Your task to perform on an android device: Play the last video I watched on Youtube Image 0: 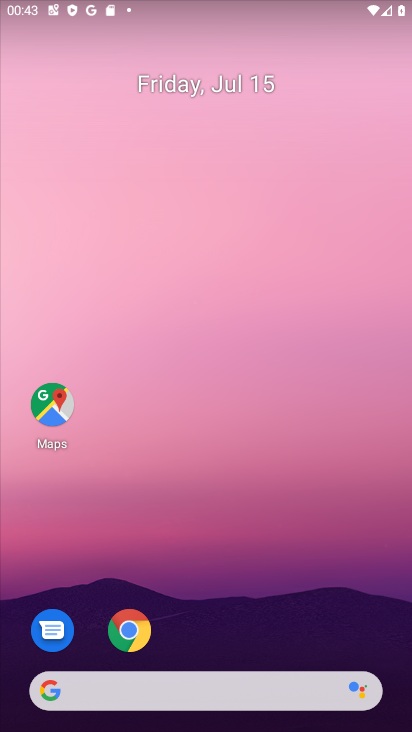
Step 0: drag from (272, 646) to (230, 177)
Your task to perform on an android device: Play the last video I watched on Youtube Image 1: 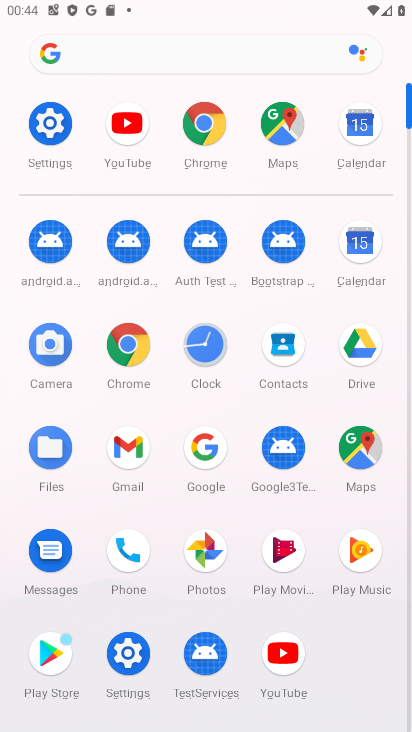
Step 1: click (277, 655)
Your task to perform on an android device: Play the last video I watched on Youtube Image 2: 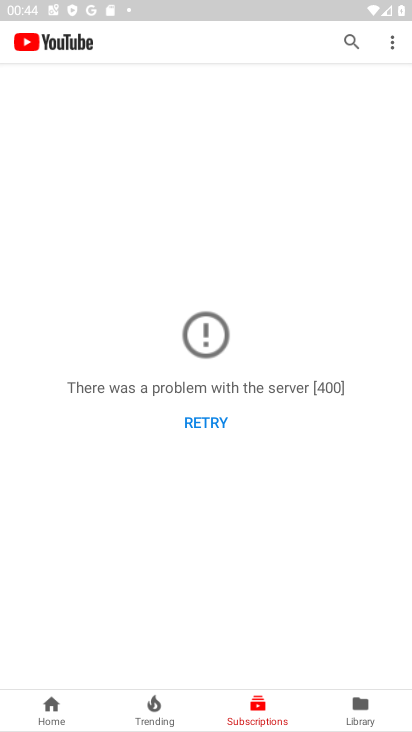
Step 2: click (363, 699)
Your task to perform on an android device: Play the last video I watched on Youtube Image 3: 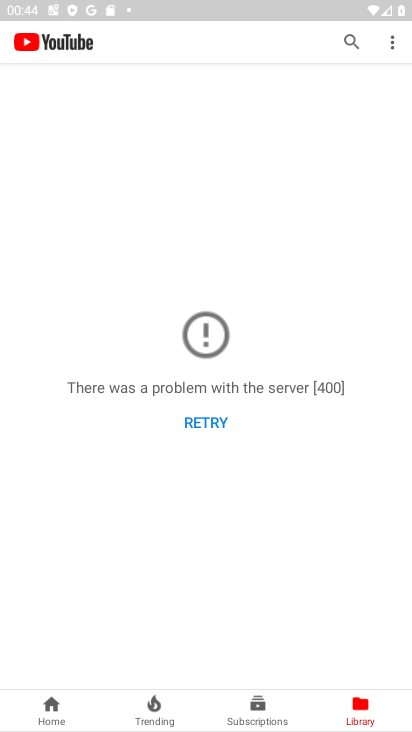
Step 3: click (209, 416)
Your task to perform on an android device: Play the last video I watched on Youtube Image 4: 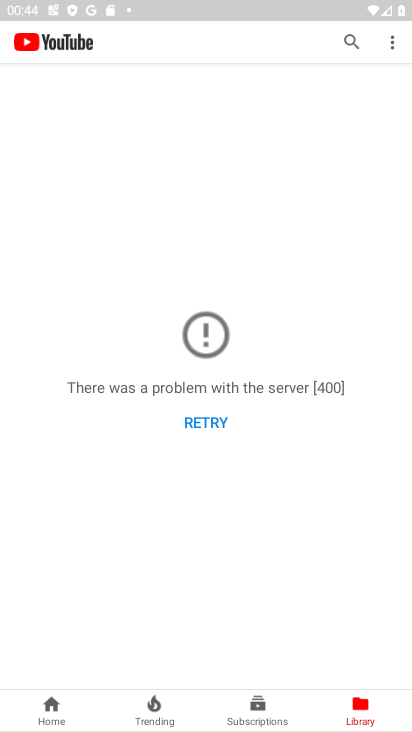
Step 4: click (209, 416)
Your task to perform on an android device: Play the last video I watched on Youtube Image 5: 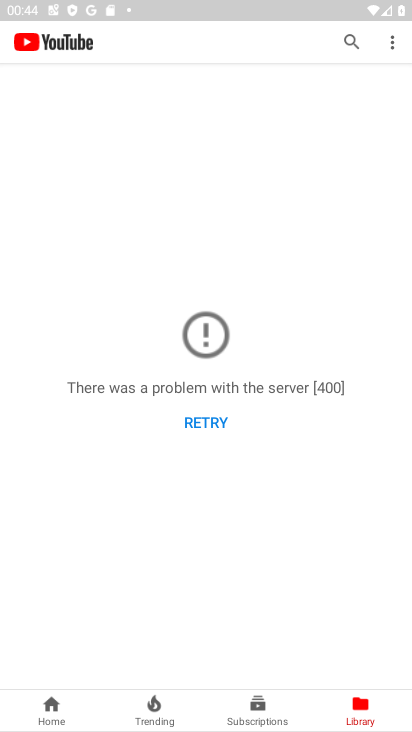
Step 5: task complete